Your task to perform on an android device: Open accessibility settings Image 0: 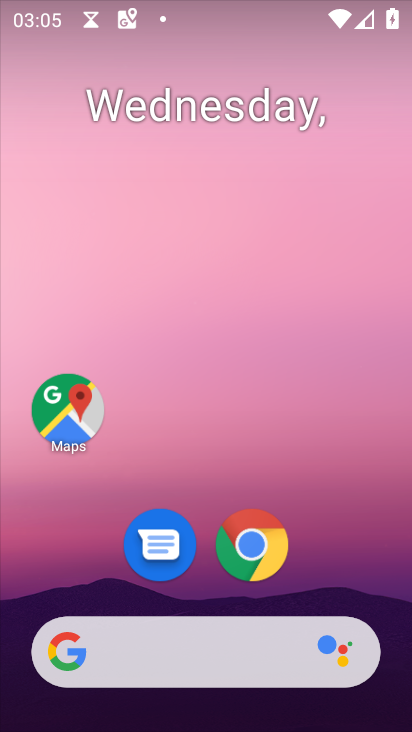
Step 0: press home button
Your task to perform on an android device: Open accessibility settings Image 1: 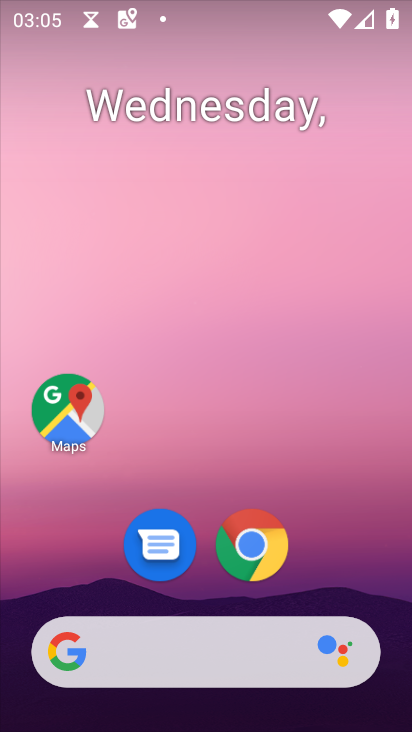
Step 1: press home button
Your task to perform on an android device: Open accessibility settings Image 2: 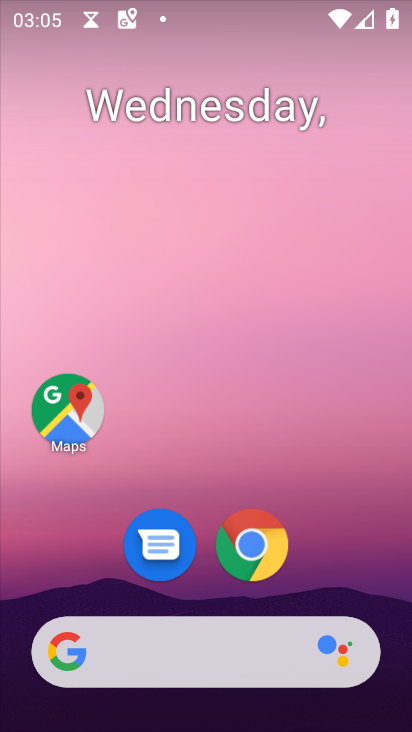
Step 2: drag from (150, 634) to (309, 81)
Your task to perform on an android device: Open accessibility settings Image 3: 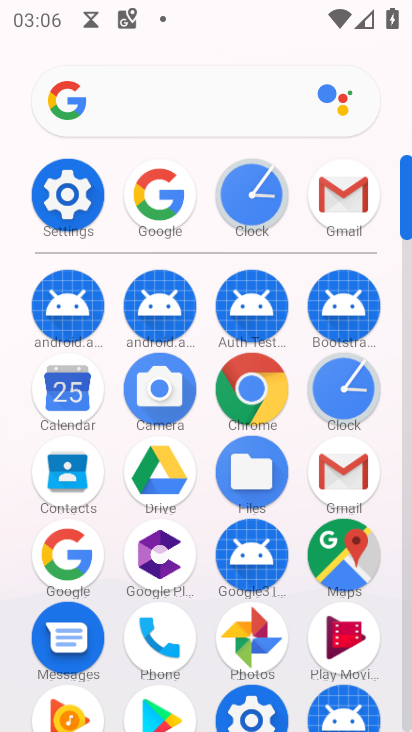
Step 3: click (64, 187)
Your task to perform on an android device: Open accessibility settings Image 4: 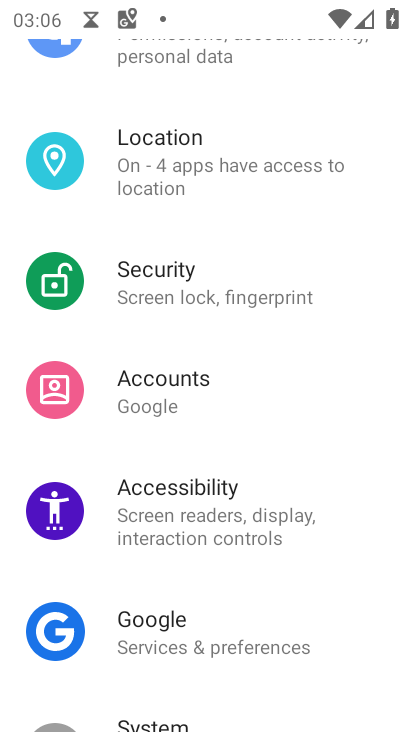
Step 4: click (206, 518)
Your task to perform on an android device: Open accessibility settings Image 5: 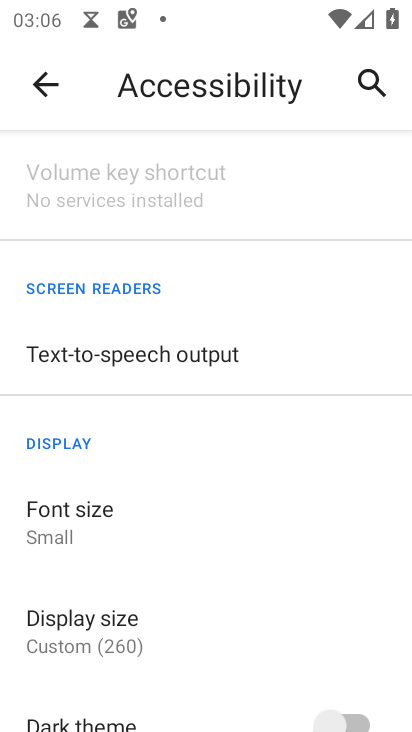
Step 5: task complete